Your task to perform on an android device: check the backup settings in the google photos Image 0: 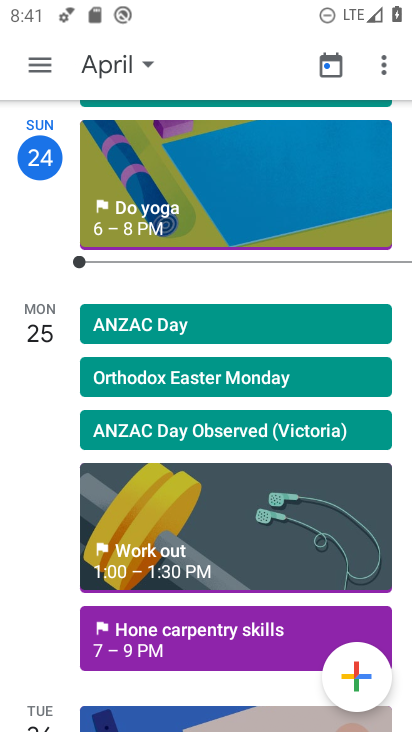
Step 0: press home button
Your task to perform on an android device: check the backup settings in the google photos Image 1: 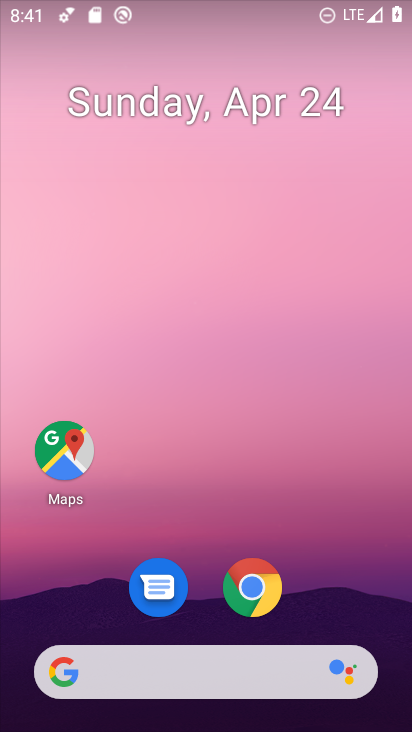
Step 1: drag from (383, 587) to (341, 110)
Your task to perform on an android device: check the backup settings in the google photos Image 2: 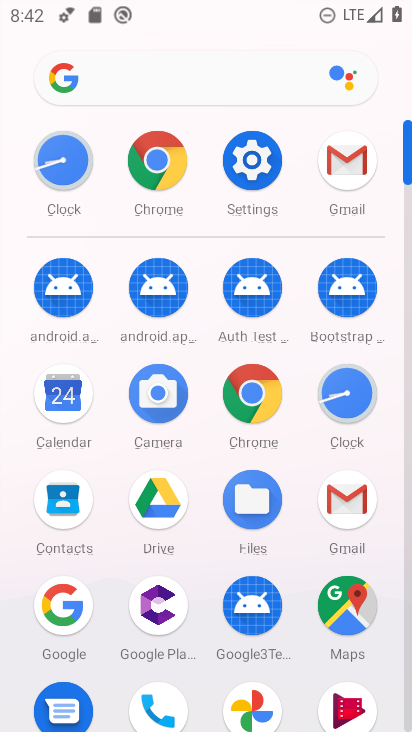
Step 2: click (252, 701)
Your task to perform on an android device: check the backup settings in the google photos Image 3: 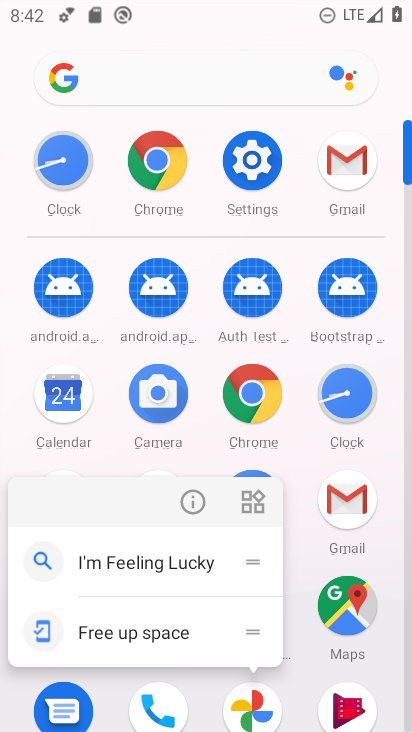
Step 3: click (253, 700)
Your task to perform on an android device: check the backup settings in the google photos Image 4: 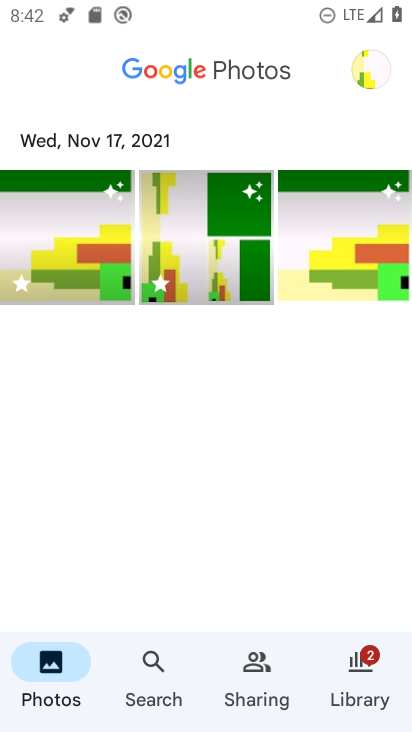
Step 4: click (380, 73)
Your task to perform on an android device: check the backup settings in the google photos Image 5: 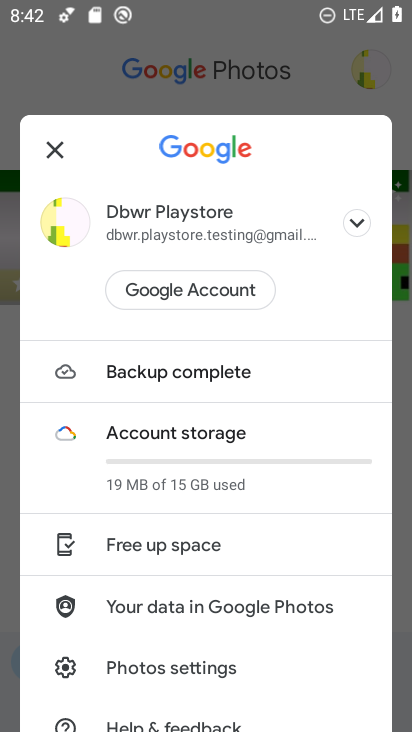
Step 5: click (210, 676)
Your task to perform on an android device: check the backup settings in the google photos Image 6: 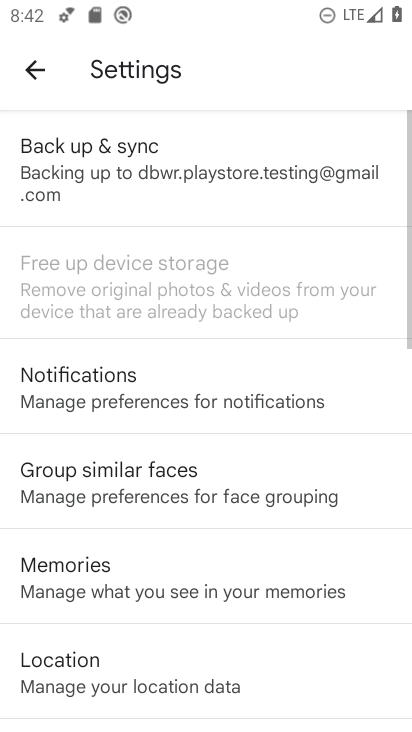
Step 6: click (130, 159)
Your task to perform on an android device: check the backup settings in the google photos Image 7: 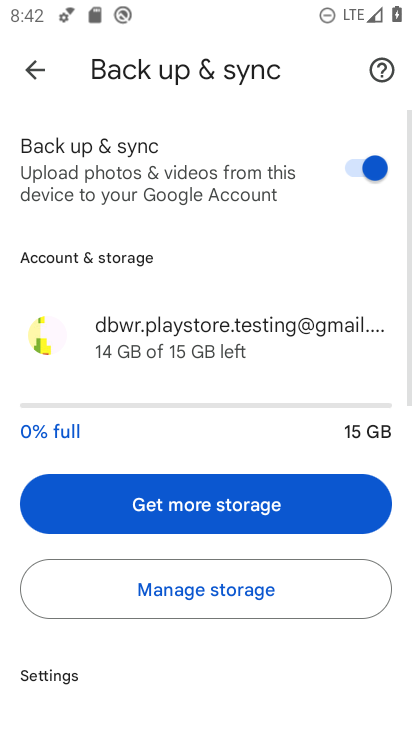
Step 7: task complete